Your task to perform on an android device: toggle priority inbox in the gmail app Image 0: 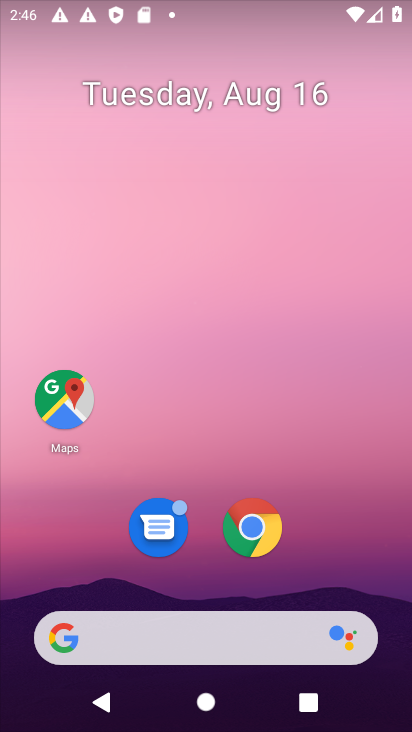
Step 0: drag from (205, 572) to (209, 85)
Your task to perform on an android device: toggle priority inbox in the gmail app Image 1: 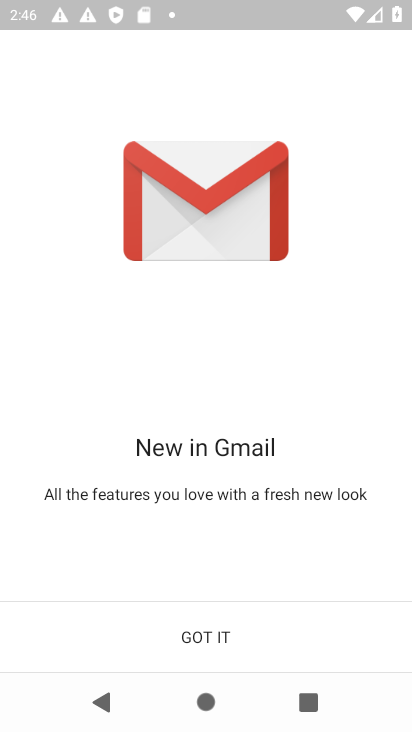
Step 1: press home button
Your task to perform on an android device: toggle priority inbox in the gmail app Image 2: 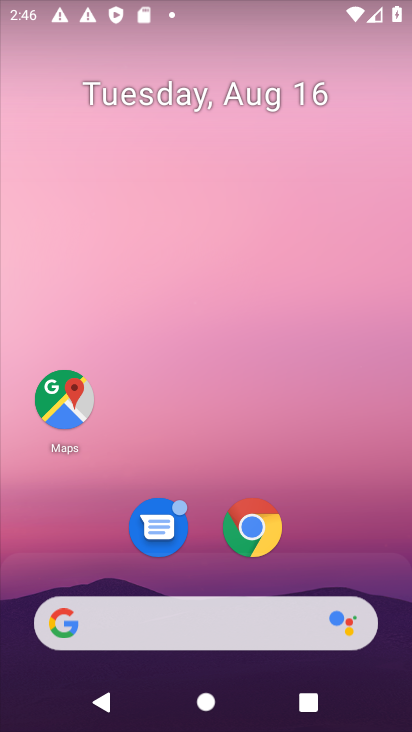
Step 2: drag from (206, 487) to (208, 96)
Your task to perform on an android device: toggle priority inbox in the gmail app Image 3: 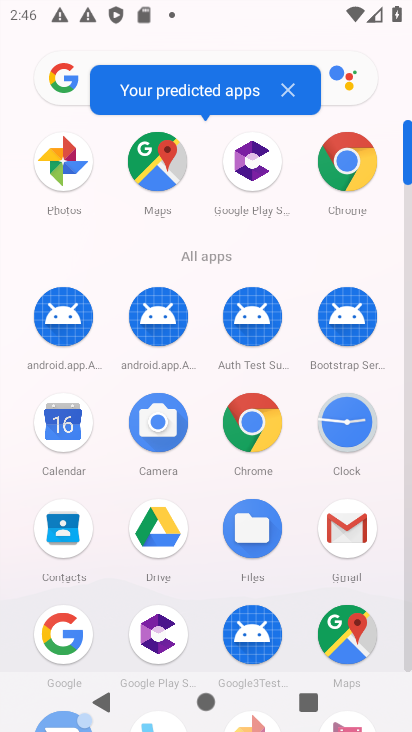
Step 3: click (342, 523)
Your task to perform on an android device: toggle priority inbox in the gmail app Image 4: 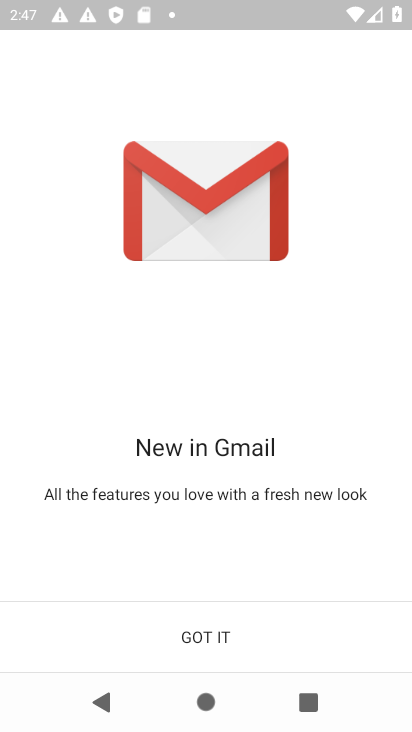
Step 4: click (203, 642)
Your task to perform on an android device: toggle priority inbox in the gmail app Image 5: 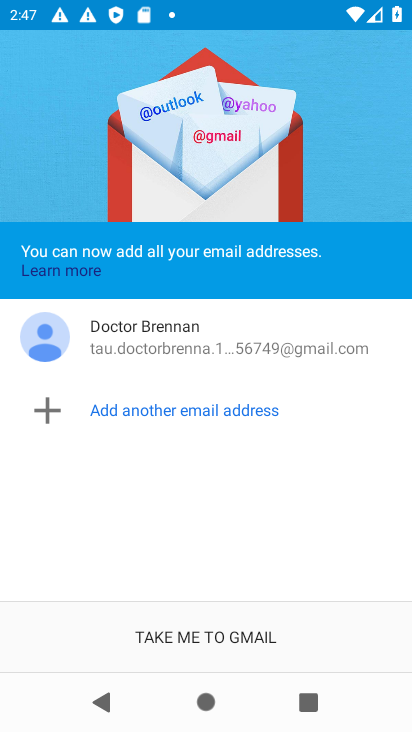
Step 5: click (184, 642)
Your task to perform on an android device: toggle priority inbox in the gmail app Image 6: 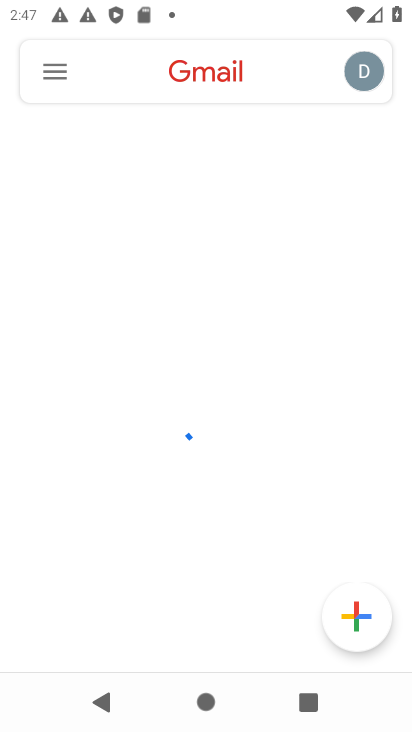
Step 6: click (60, 72)
Your task to perform on an android device: toggle priority inbox in the gmail app Image 7: 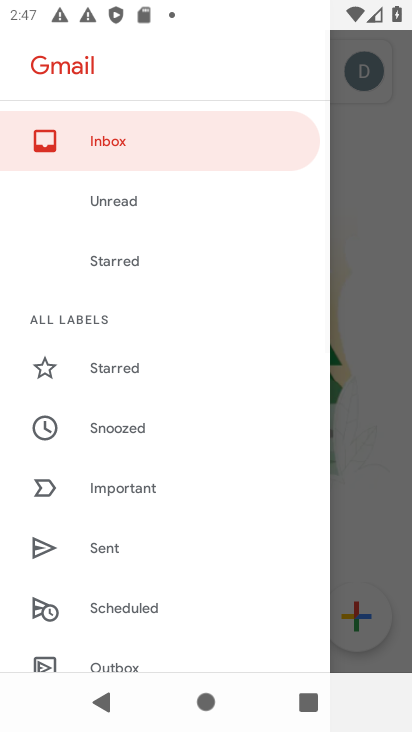
Step 7: drag from (149, 622) to (119, 244)
Your task to perform on an android device: toggle priority inbox in the gmail app Image 8: 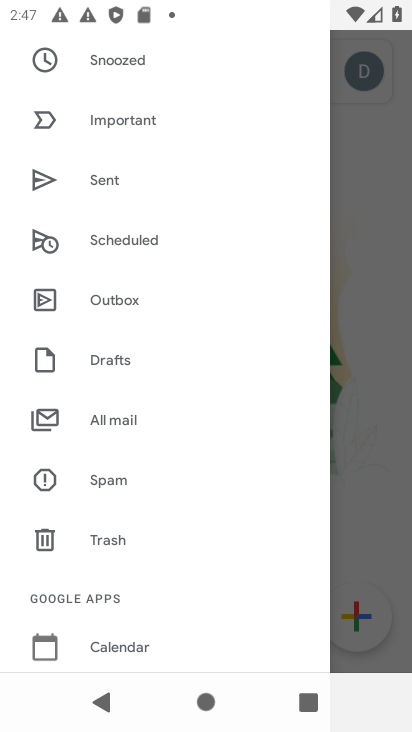
Step 8: drag from (154, 600) to (179, 139)
Your task to perform on an android device: toggle priority inbox in the gmail app Image 9: 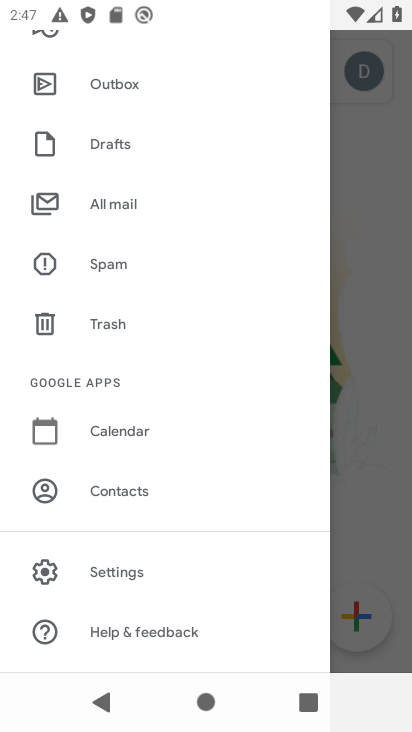
Step 9: click (131, 577)
Your task to perform on an android device: toggle priority inbox in the gmail app Image 10: 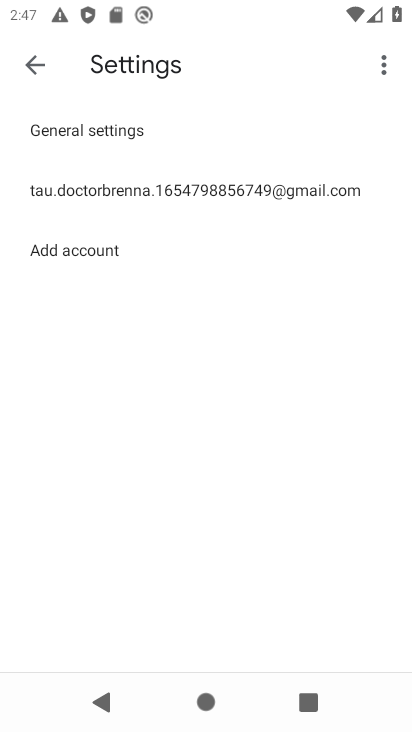
Step 10: click (140, 183)
Your task to perform on an android device: toggle priority inbox in the gmail app Image 11: 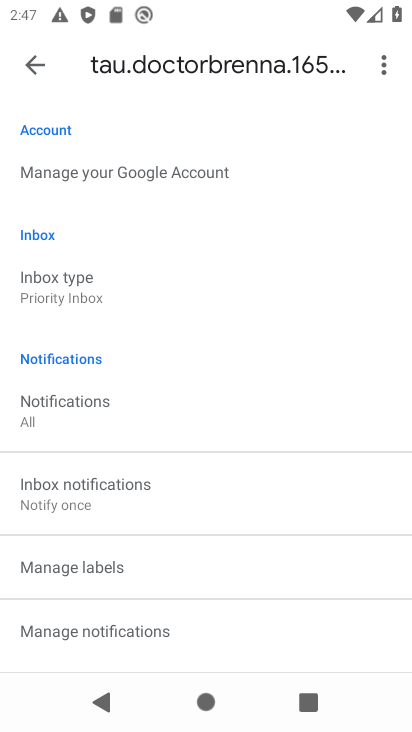
Step 11: click (135, 286)
Your task to perform on an android device: toggle priority inbox in the gmail app Image 12: 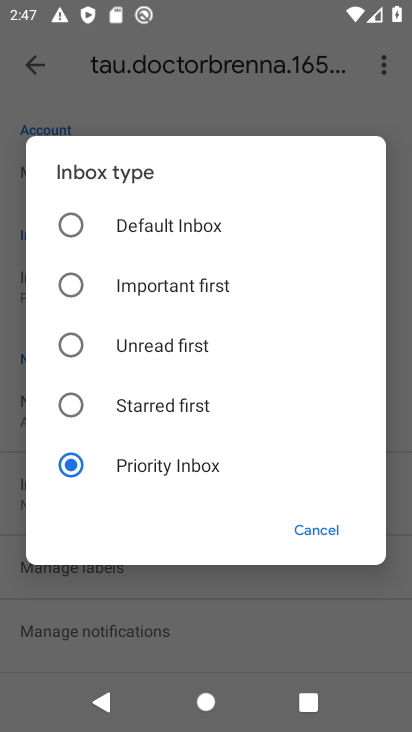
Step 12: task complete